Your task to perform on an android device: Turn on the flashlight Image 0: 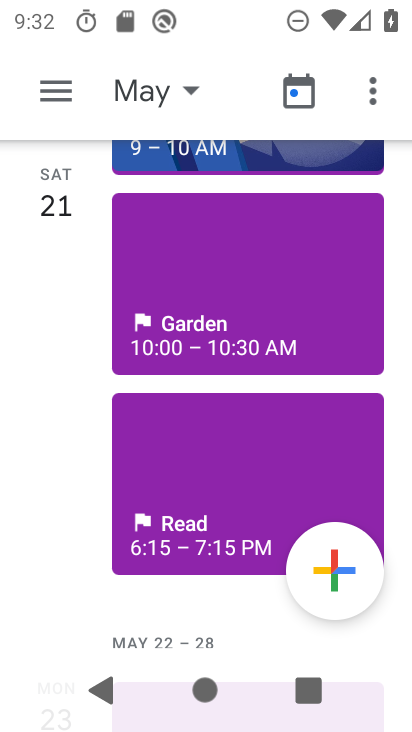
Step 0: press home button
Your task to perform on an android device: Turn on the flashlight Image 1: 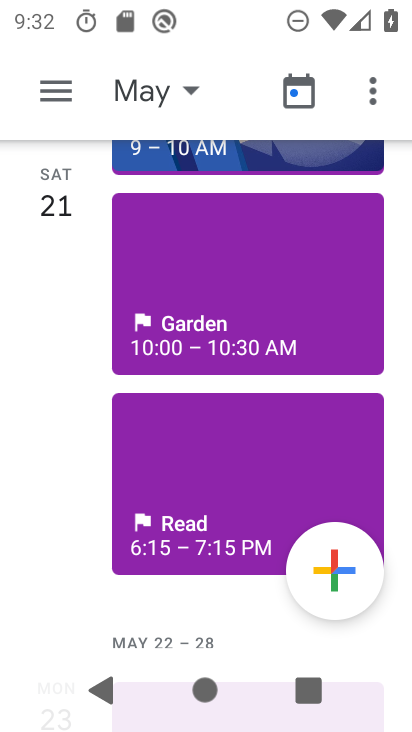
Step 1: press home button
Your task to perform on an android device: Turn on the flashlight Image 2: 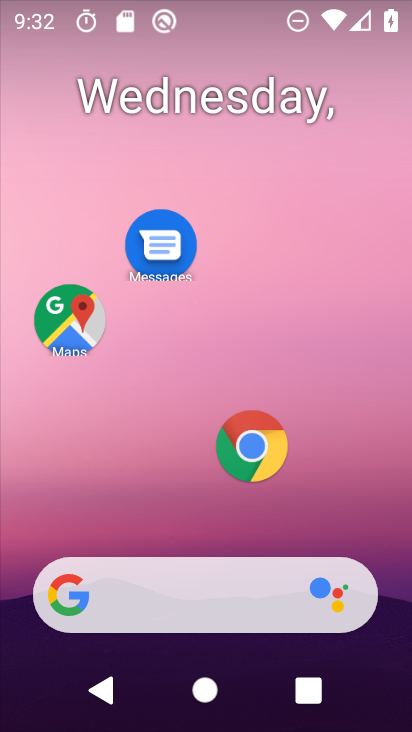
Step 2: drag from (196, 536) to (226, 5)
Your task to perform on an android device: Turn on the flashlight Image 3: 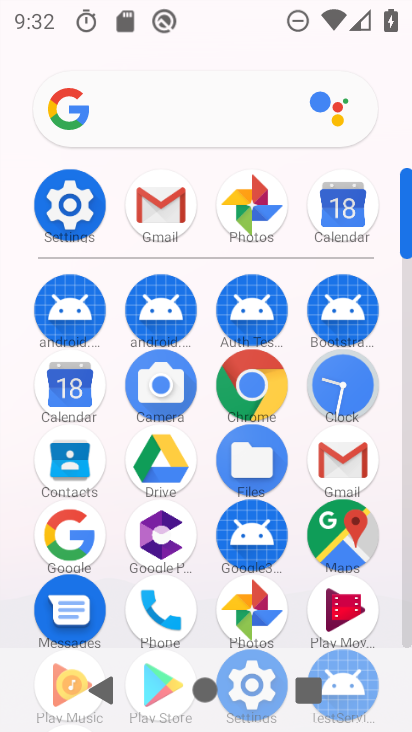
Step 3: click (71, 200)
Your task to perform on an android device: Turn on the flashlight Image 4: 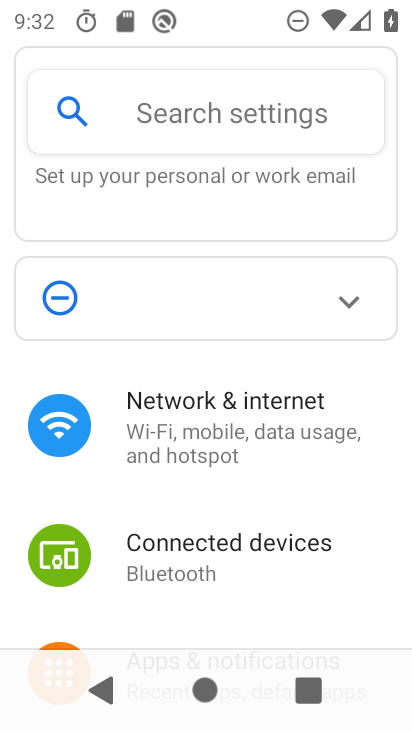
Step 4: click (170, 120)
Your task to perform on an android device: Turn on the flashlight Image 5: 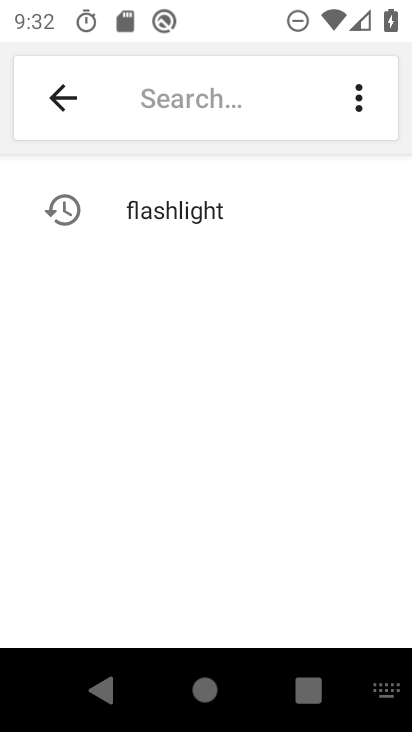
Step 5: click (119, 210)
Your task to perform on an android device: Turn on the flashlight Image 6: 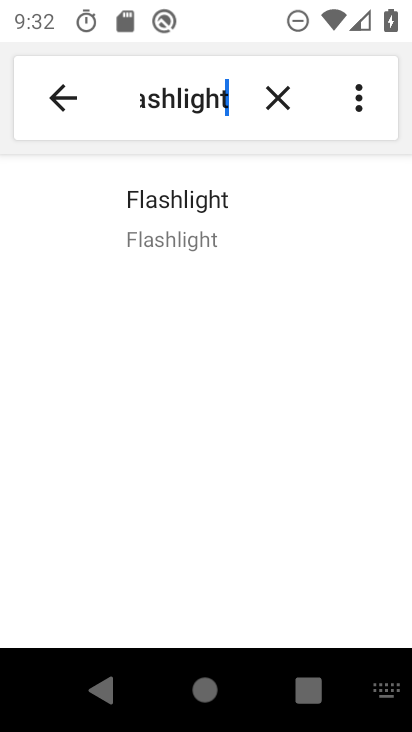
Step 6: click (157, 220)
Your task to perform on an android device: Turn on the flashlight Image 7: 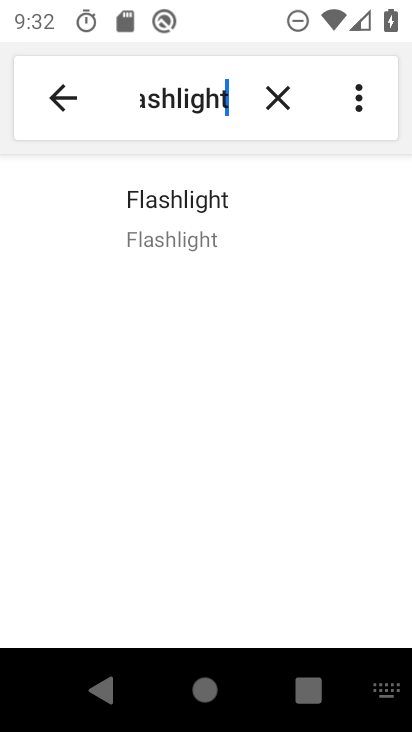
Step 7: task complete